Your task to perform on an android device: Find coffee shops on Maps Image 0: 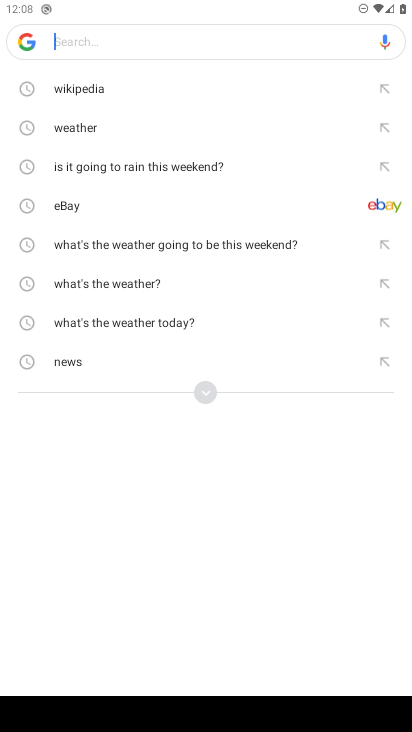
Step 0: press home button
Your task to perform on an android device: Find coffee shops on Maps Image 1: 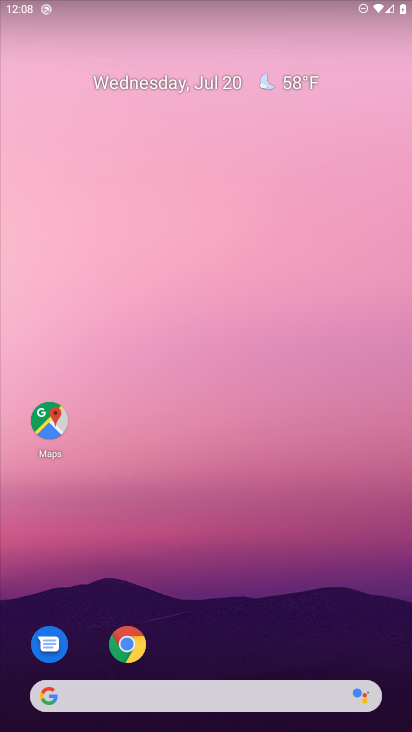
Step 1: click (46, 428)
Your task to perform on an android device: Find coffee shops on Maps Image 2: 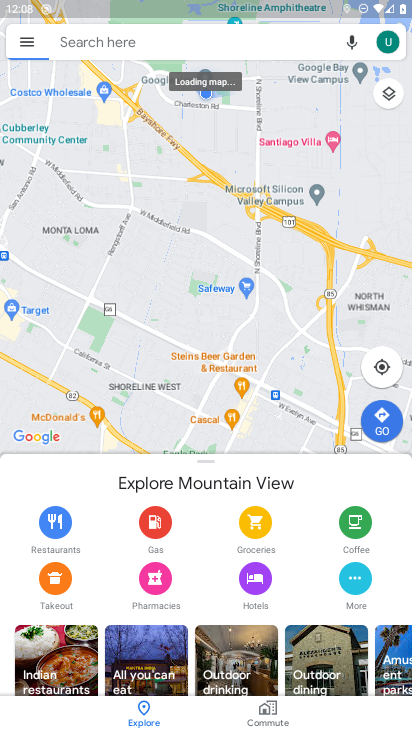
Step 2: click (103, 44)
Your task to perform on an android device: Find coffee shops on Maps Image 3: 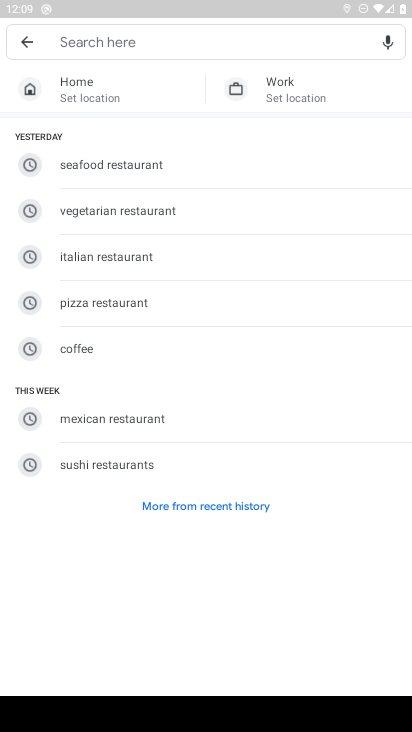
Step 3: type "coffee shops "
Your task to perform on an android device: Find coffee shops on Maps Image 4: 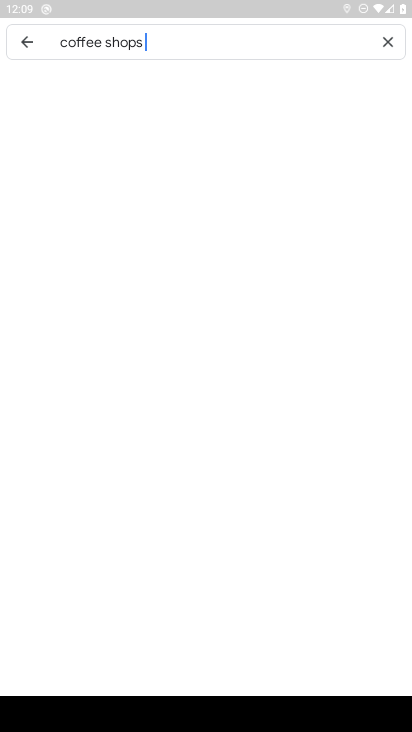
Step 4: type ""
Your task to perform on an android device: Find coffee shops on Maps Image 5: 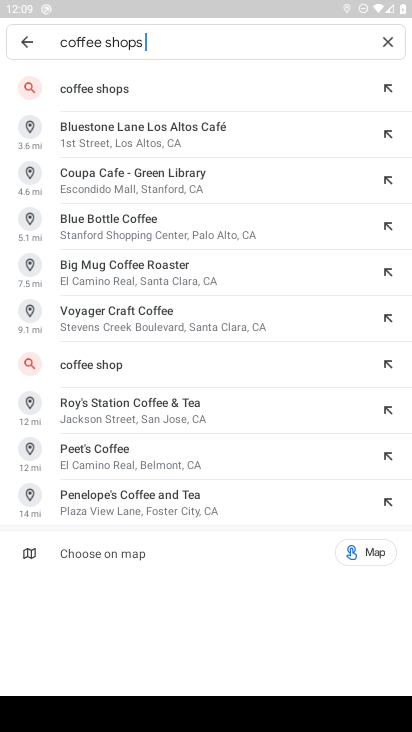
Step 5: click (85, 90)
Your task to perform on an android device: Find coffee shops on Maps Image 6: 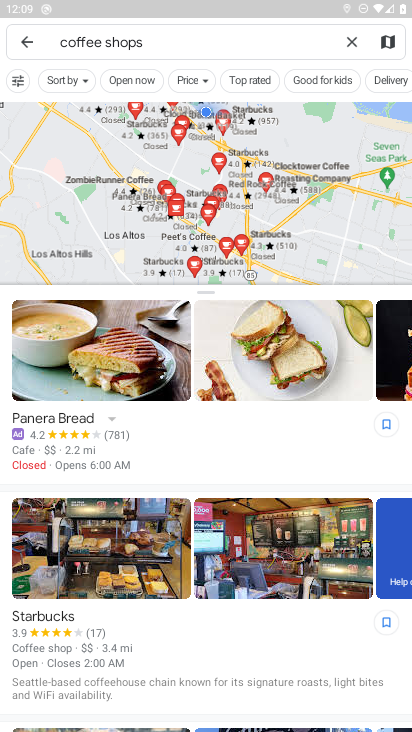
Step 6: task complete